Your task to perform on an android device: change the upload size in google photos Image 0: 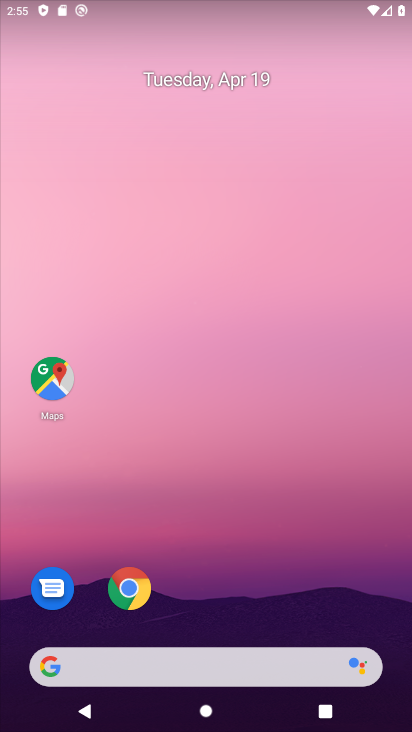
Step 0: drag from (206, 533) to (232, 143)
Your task to perform on an android device: change the upload size in google photos Image 1: 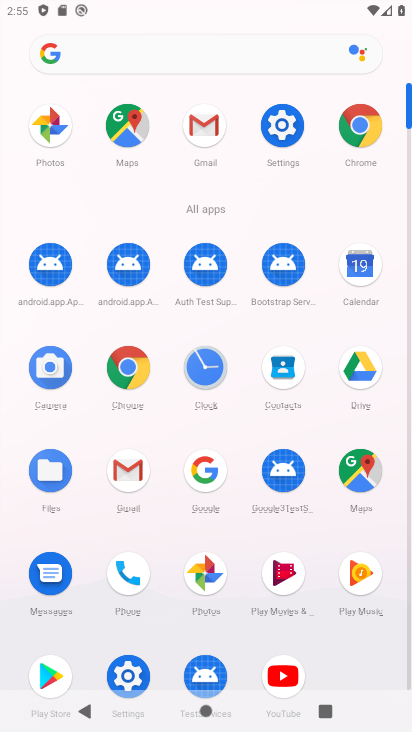
Step 1: click (204, 581)
Your task to perform on an android device: change the upload size in google photos Image 2: 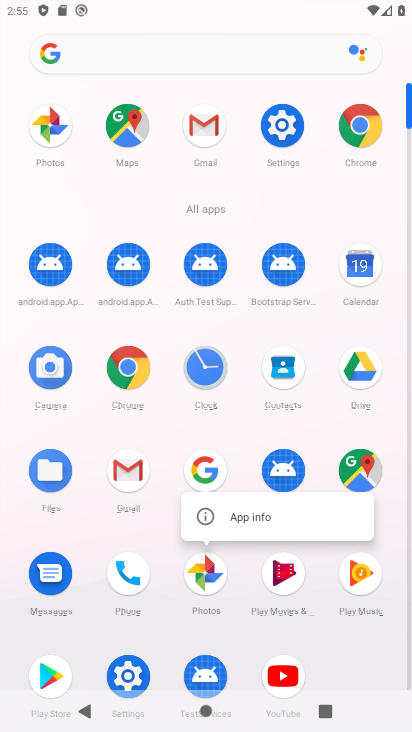
Step 2: click (256, 518)
Your task to perform on an android device: change the upload size in google photos Image 3: 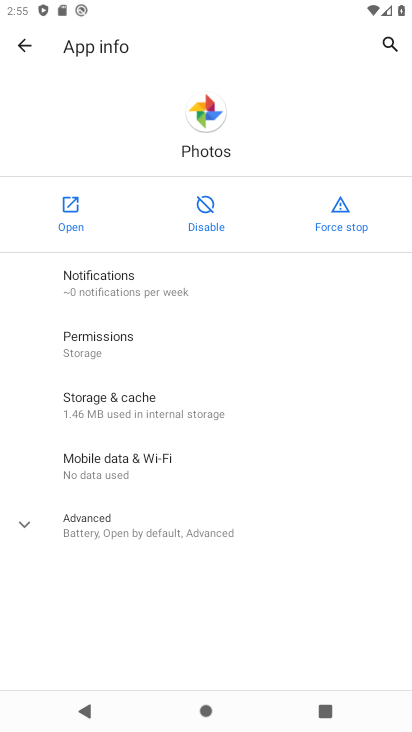
Step 3: click (75, 217)
Your task to perform on an android device: change the upload size in google photos Image 4: 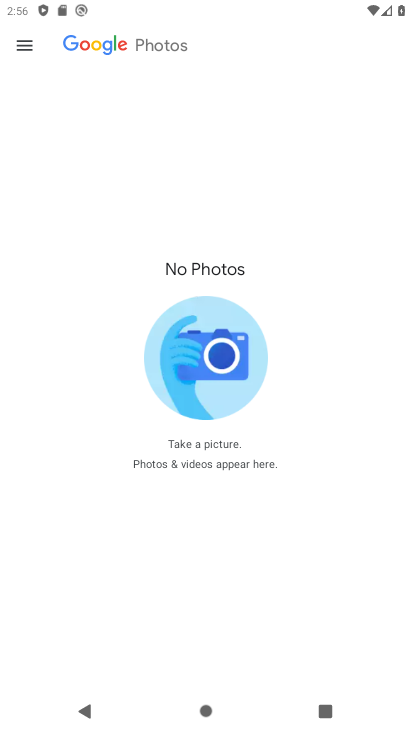
Step 4: click (22, 46)
Your task to perform on an android device: change the upload size in google photos Image 5: 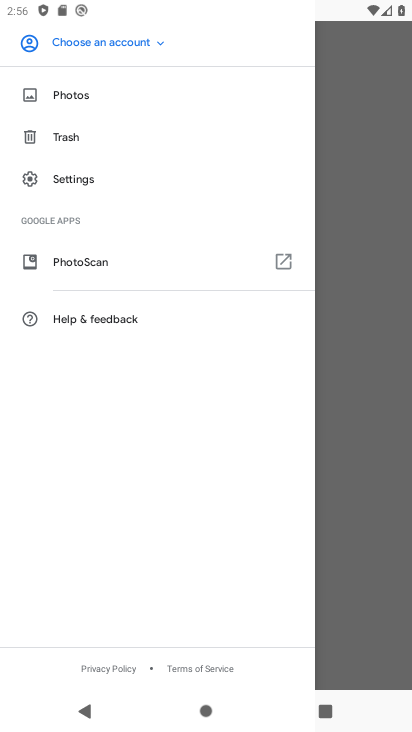
Step 5: click (86, 184)
Your task to perform on an android device: change the upload size in google photos Image 6: 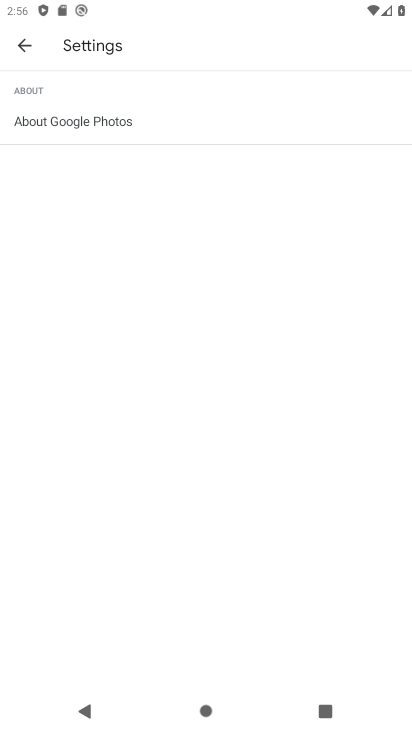
Step 6: click (25, 63)
Your task to perform on an android device: change the upload size in google photos Image 7: 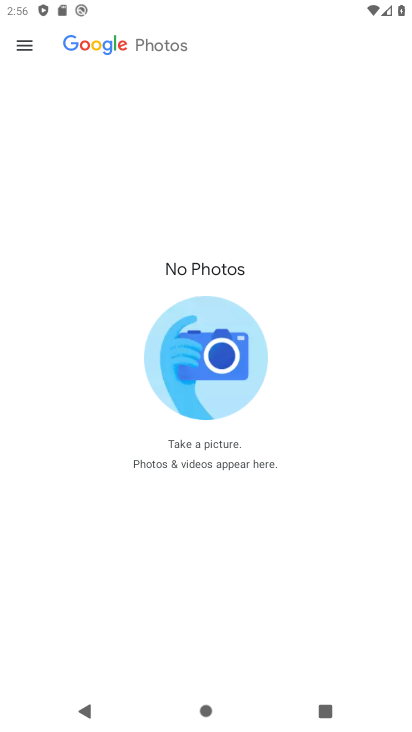
Step 7: click (29, 56)
Your task to perform on an android device: change the upload size in google photos Image 8: 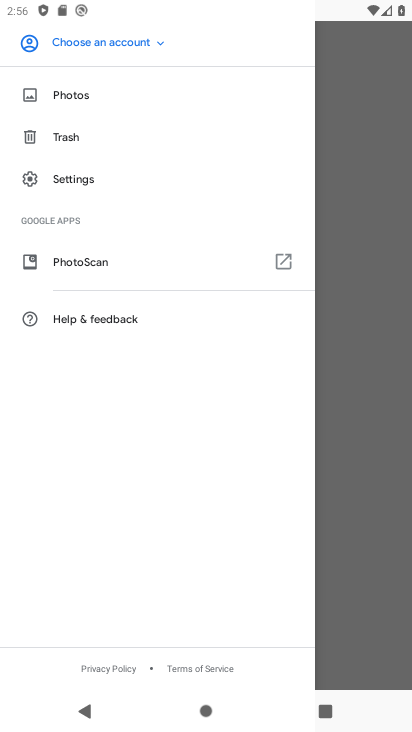
Step 8: click (78, 166)
Your task to perform on an android device: change the upload size in google photos Image 9: 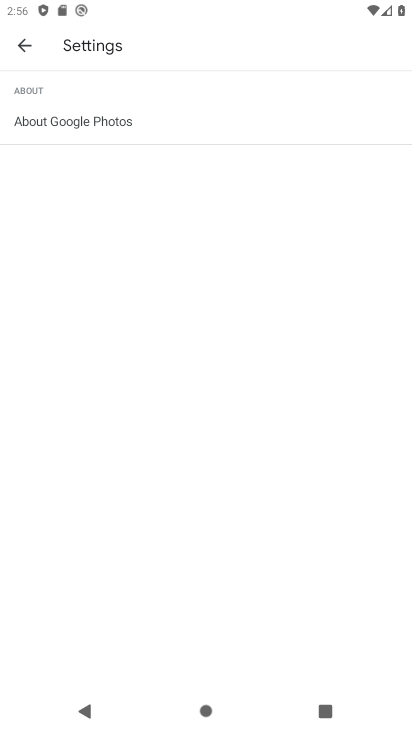
Step 9: click (128, 123)
Your task to perform on an android device: change the upload size in google photos Image 10: 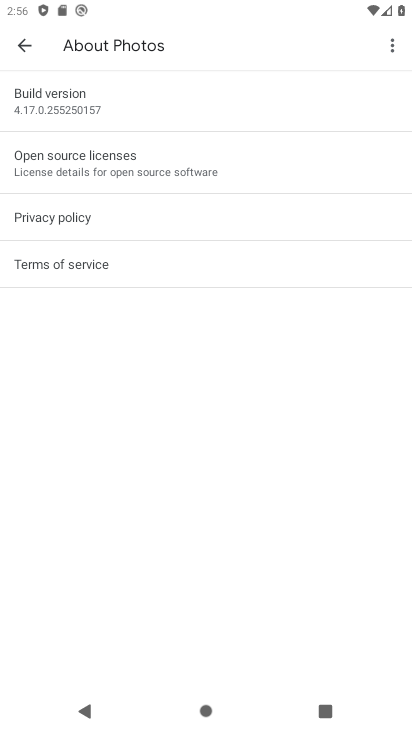
Step 10: task complete